Your task to perform on an android device: open app "McDonald's" Image 0: 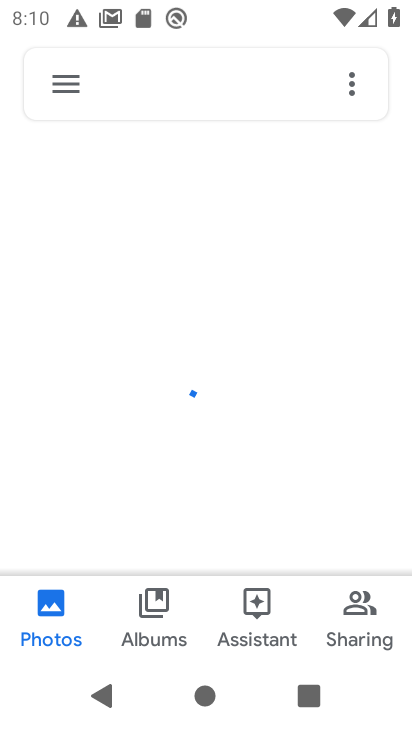
Step 0: press home button
Your task to perform on an android device: open app "McDonald's" Image 1: 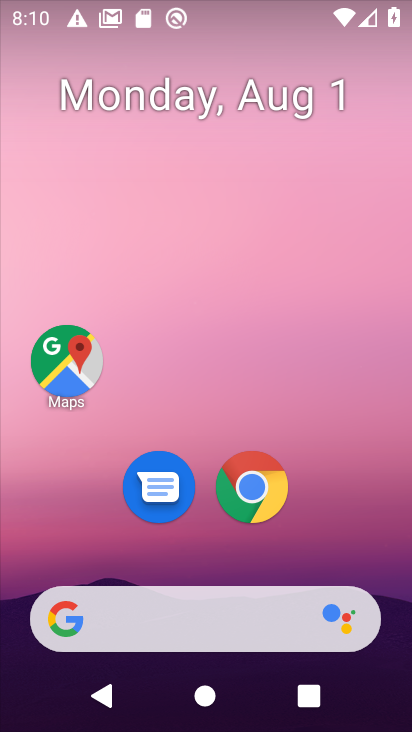
Step 1: drag from (368, 466) to (356, 128)
Your task to perform on an android device: open app "McDonald's" Image 2: 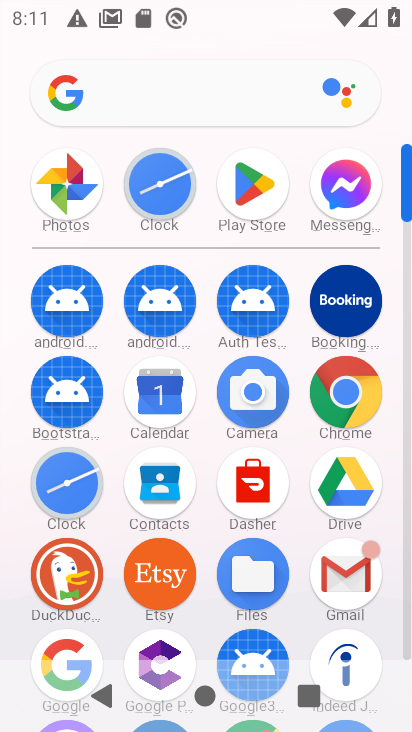
Step 2: click (261, 202)
Your task to perform on an android device: open app "McDonald's" Image 3: 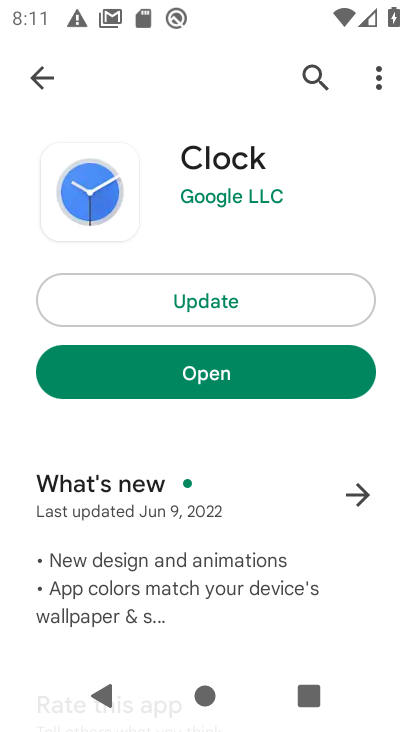
Step 3: click (314, 79)
Your task to perform on an android device: open app "McDonald's" Image 4: 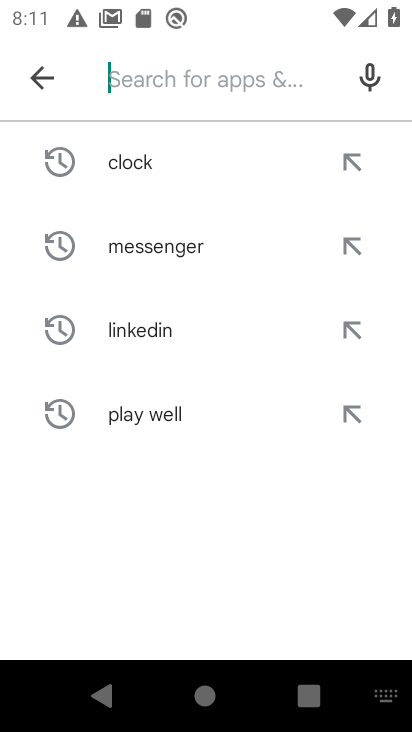
Step 4: type "mcdonalds"
Your task to perform on an android device: open app "McDonald's" Image 5: 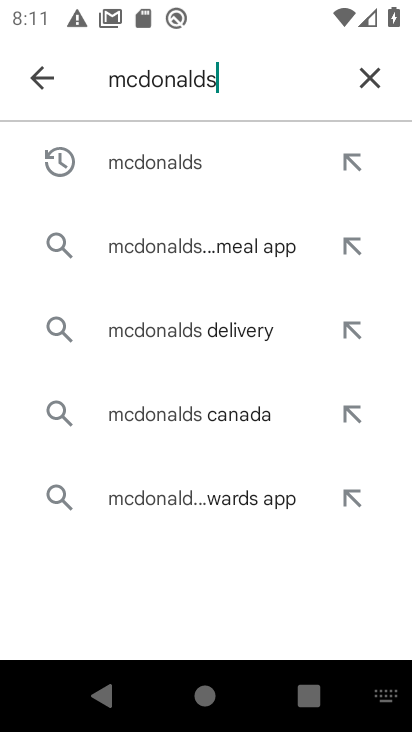
Step 5: click (211, 161)
Your task to perform on an android device: open app "McDonald's" Image 6: 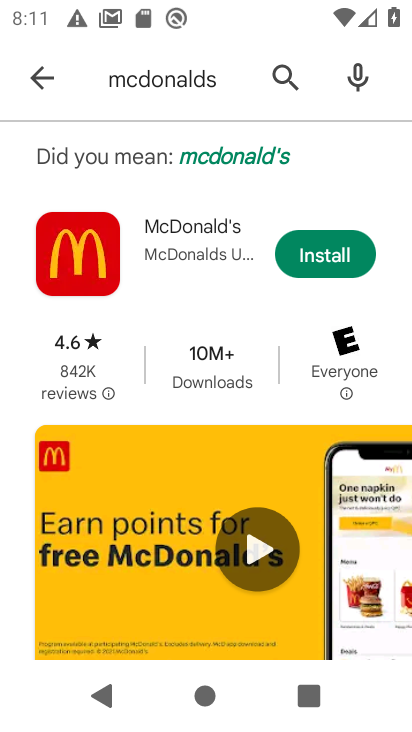
Step 6: task complete